Your task to perform on an android device: What's the weather going to be this weekend? Image 0: 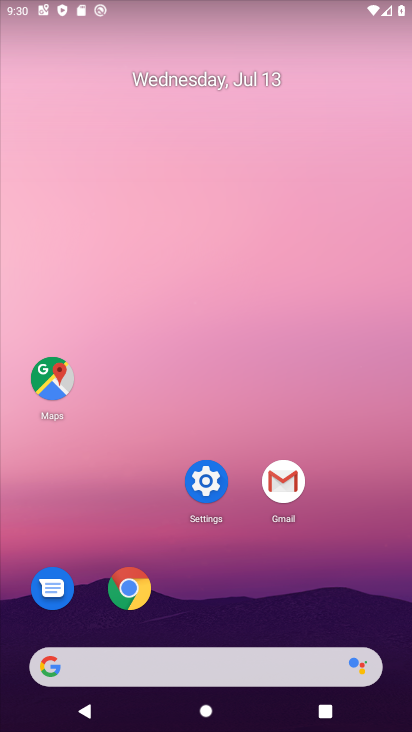
Step 0: drag from (380, 634) to (322, 144)
Your task to perform on an android device: What's the weather going to be this weekend? Image 1: 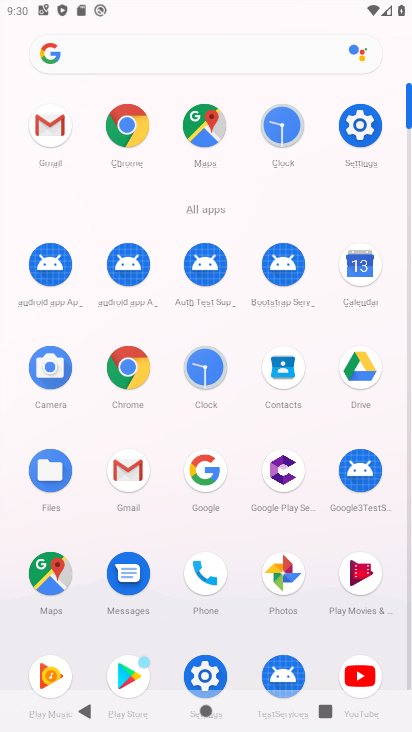
Step 1: click (372, 105)
Your task to perform on an android device: What's the weather going to be this weekend? Image 2: 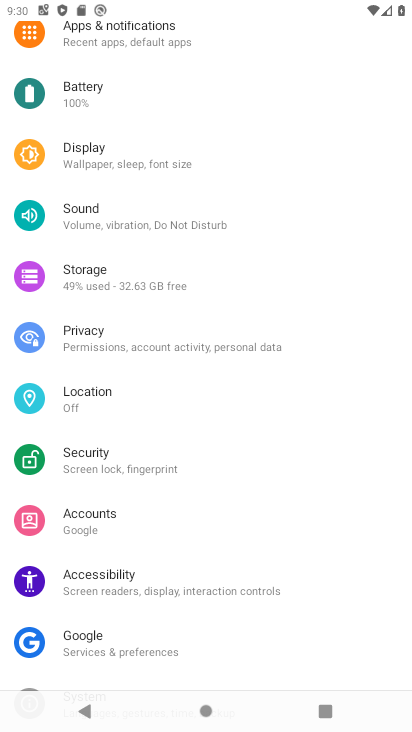
Step 2: press home button
Your task to perform on an android device: What's the weather going to be this weekend? Image 3: 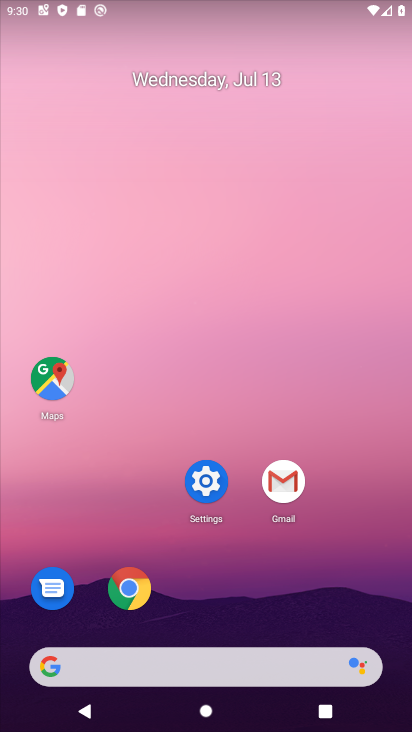
Step 3: drag from (390, 640) to (329, 176)
Your task to perform on an android device: What's the weather going to be this weekend? Image 4: 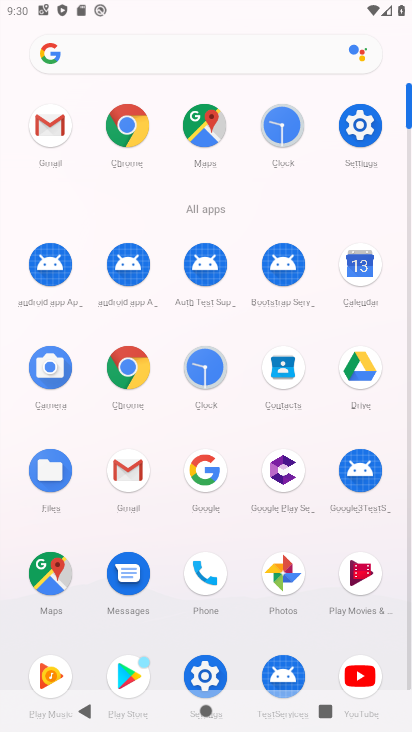
Step 4: click (362, 265)
Your task to perform on an android device: What's the weather going to be this weekend? Image 5: 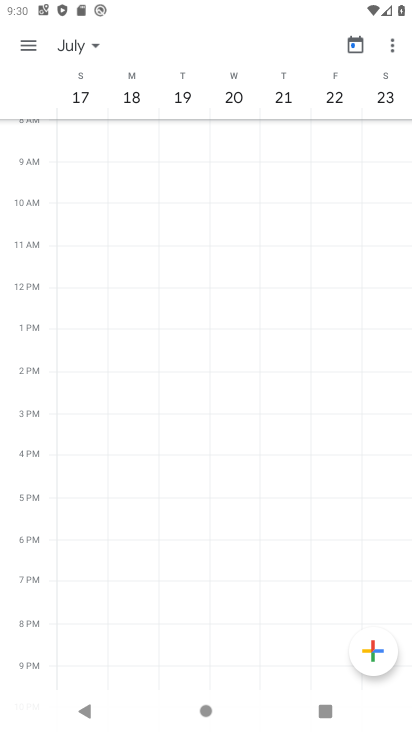
Step 5: task complete